Your task to perform on an android device: check battery use Image 0: 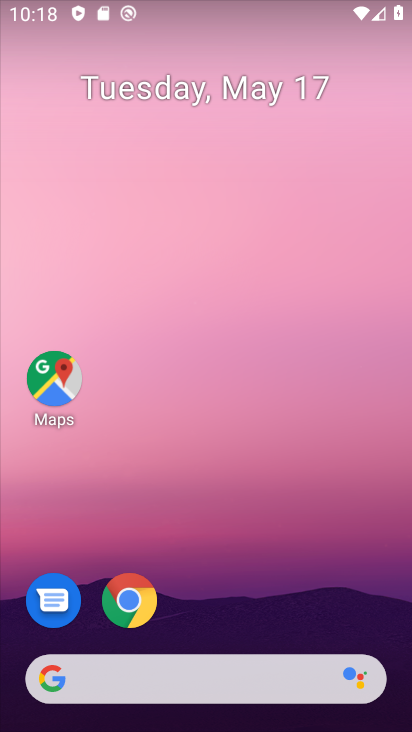
Step 0: drag from (227, 627) to (293, 102)
Your task to perform on an android device: check battery use Image 1: 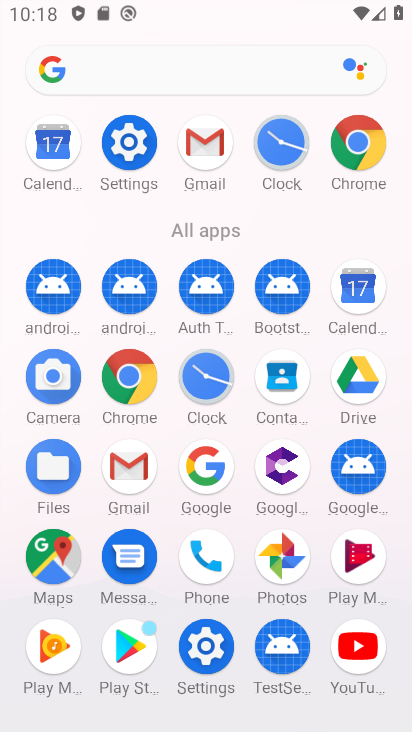
Step 1: click (135, 141)
Your task to perform on an android device: check battery use Image 2: 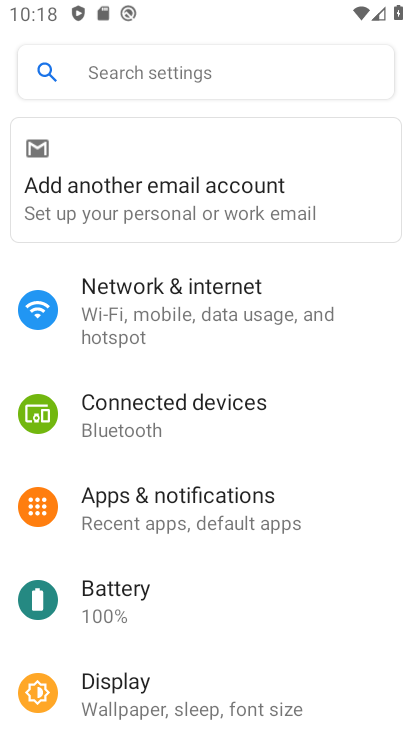
Step 2: click (127, 609)
Your task to perform on an android device: check battery use Image 3: 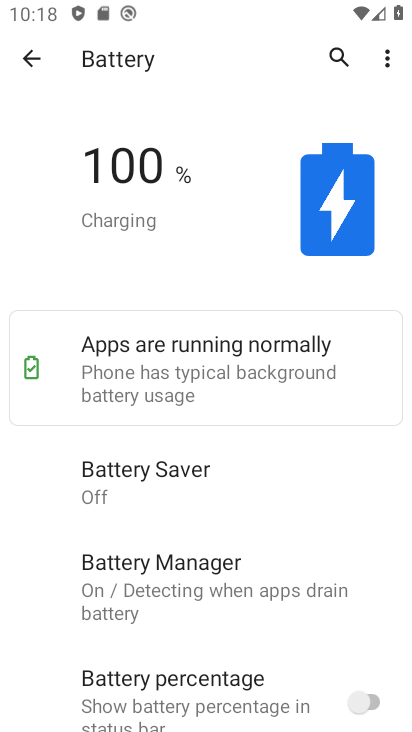
Step 3: click (375, 60)
Your task to perform on an android device: check battery use Image 4: 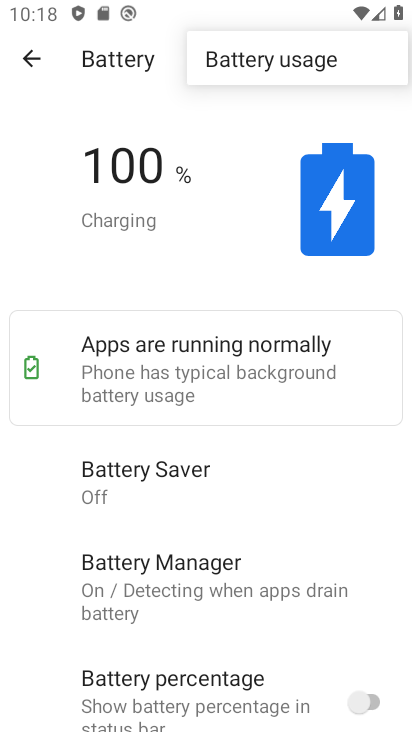
Step 4: click (311, 65)
Your task to perform on an android device: check battery use Image 5: 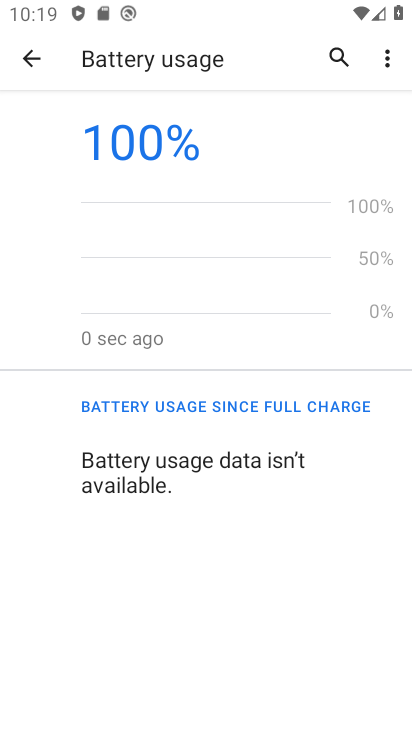
Step 5: task complete